Your task to perform on an android device: toggle pop-ups in chrome Image 0: 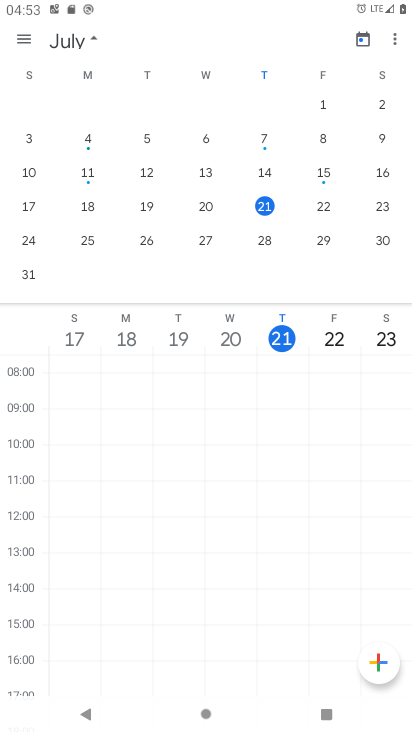
Step 0: press home button
Your task to perform on an android device: toggle pop-ups in chrome Image 1: 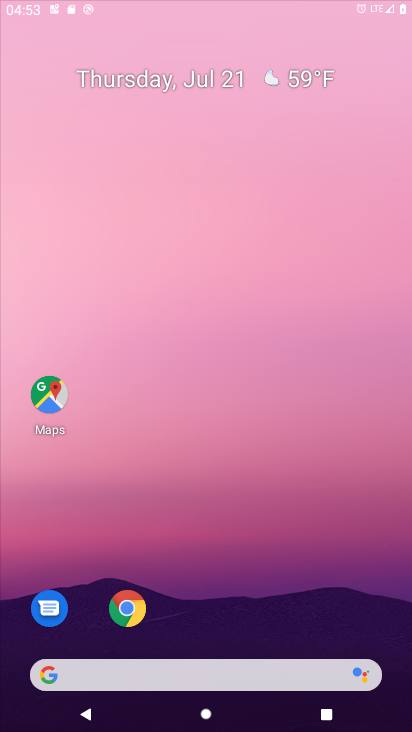
Step 1: drag from (270, 696) to (272, 115)
Your task to perform on an android device: toggle pop-ups in chrome Image 2: 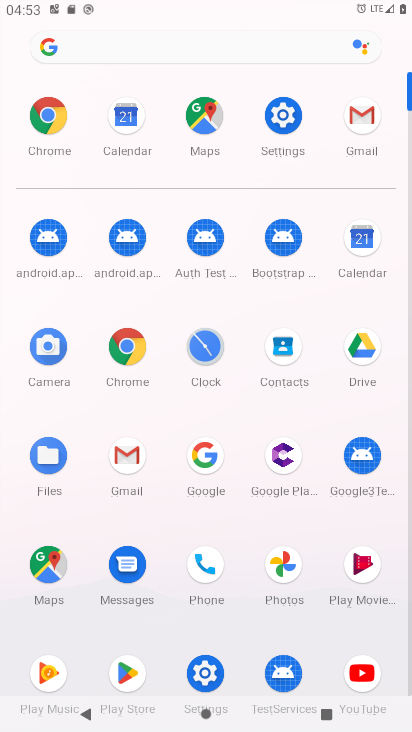
Step 2: click (127, 337)
Your task to perform on an android device: toggle pop-ups in chrome Image 3: 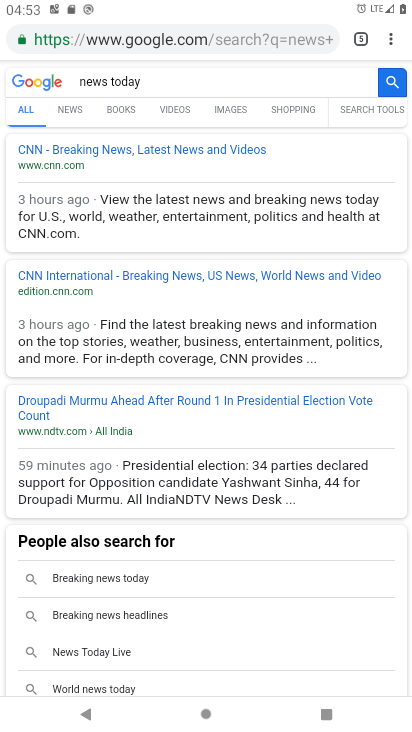
Step 3: drag from (385, 43) to (272, 439)
Your task to perform on an android device: toggle pop-ups in chrome Image 4: 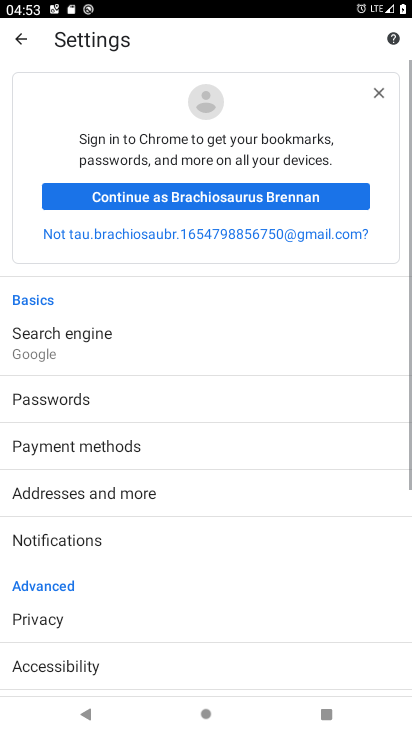
Step 4: drag from (165, 597) to (237, 188)
Your task to perform on an android device: toggle pop-ups in chrome Image 5: 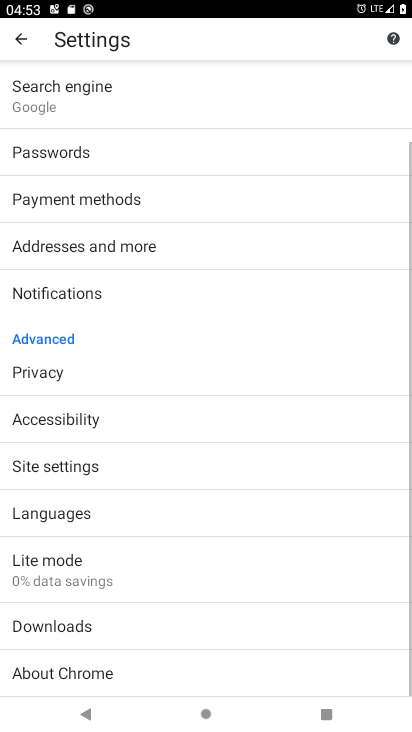
Step 5: click (69, 478)
Your task to perform on an android device: toggle pop-ups in chrome Image 6: 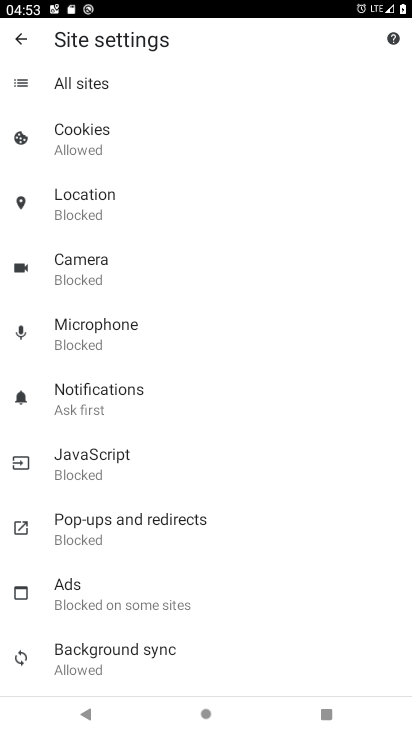
Step 6: click (101, 524)
Your task to perform on an android device: toggle pop-ups in chrome Image 7: 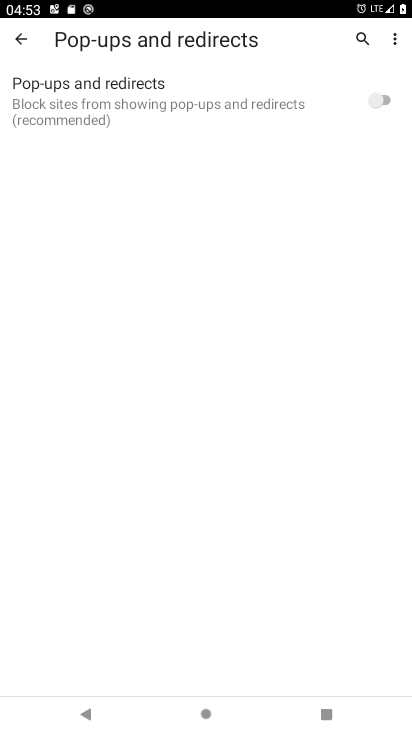
Step 7: click (395, 95)
Your task to perform on an android device: toggle pop-ups in chrome Image 8: 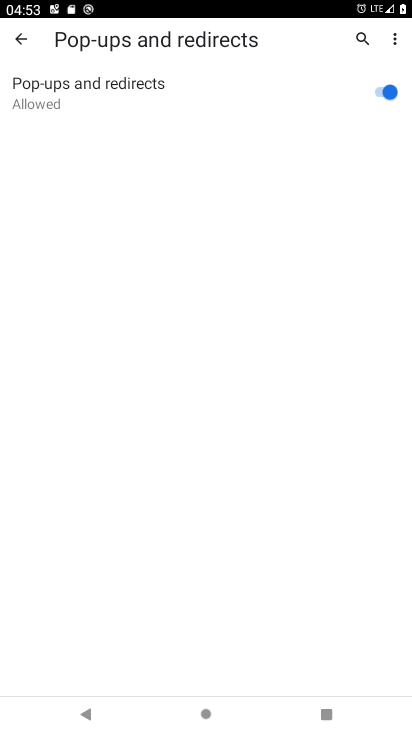
Step 8: task complete